Your task to perform on an android device: Go to internet settings Image 0: 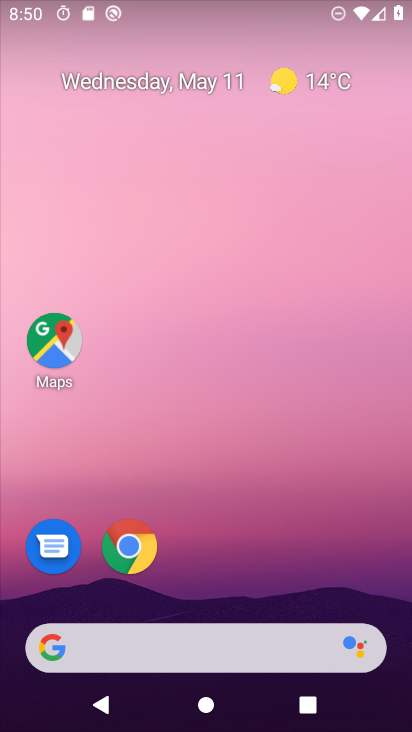
Step 0: drag from (227, 641) to (224, 313)
Your task to perform on an android device: Go to internet settings Image 1: 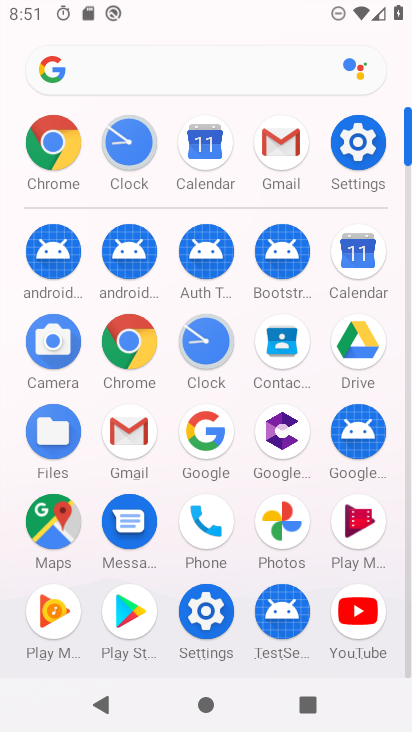
Step 1: click (340, 156)
Your task to perform on an android device: Go to internet settings Image 2: 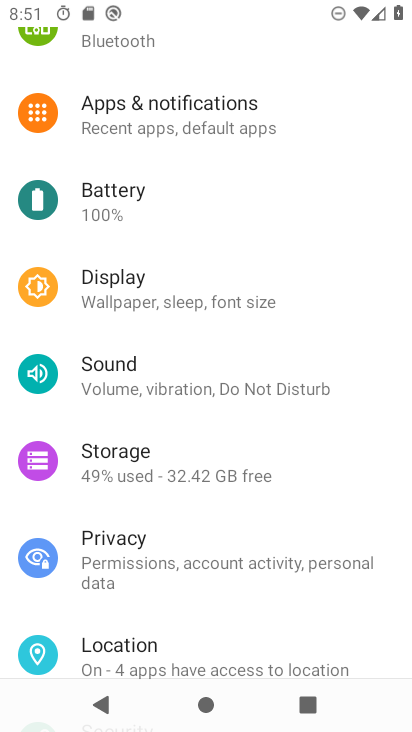
Step 2: drag from (136, 150) to (365, 413)
Your task to perform on an android device: Go to internet settings Image 3: 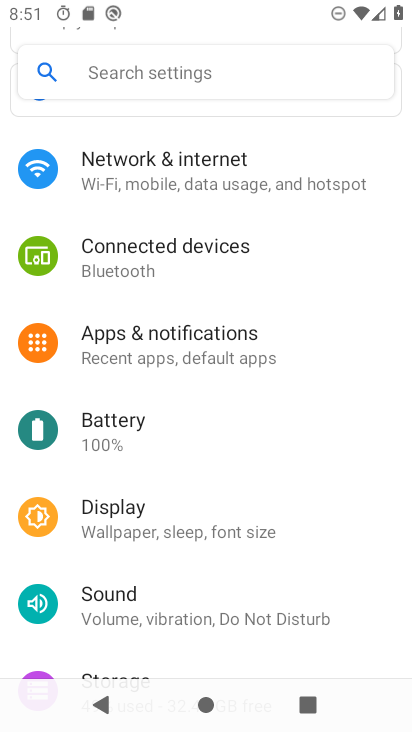
Step 3: click (109, 155)
Your task to perform on an android device: Go to internet settings Image 4: 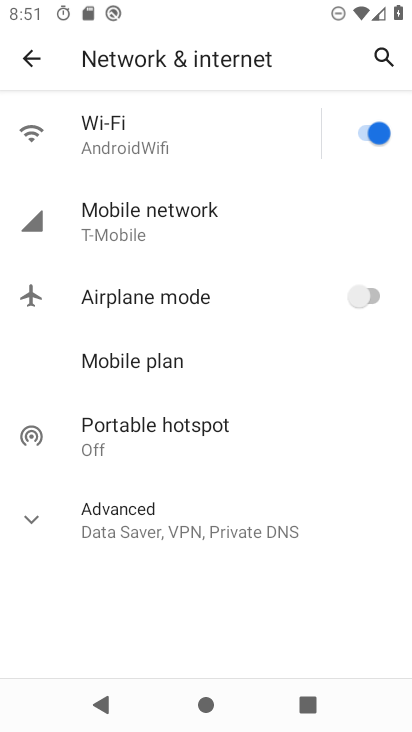
Step 4: task complete